Your task to perform on an android device: delete the emails in spam in the gmail app Image 0: 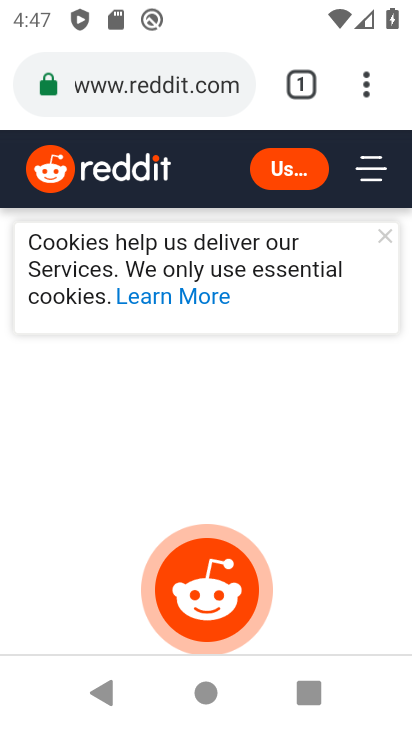
Step 0: press back button
Your task to perform on an android device: delete the emails in spam in the gmail app Image 1: 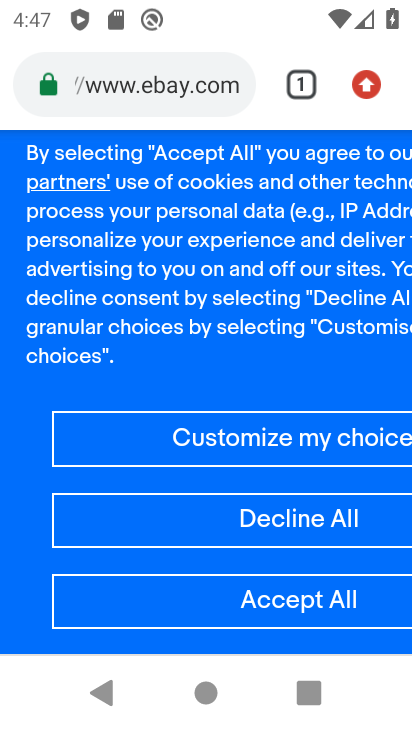
Step 1: press back button
Your task to perform on an android device: delete the emails in spam in the gmail app Image 2: 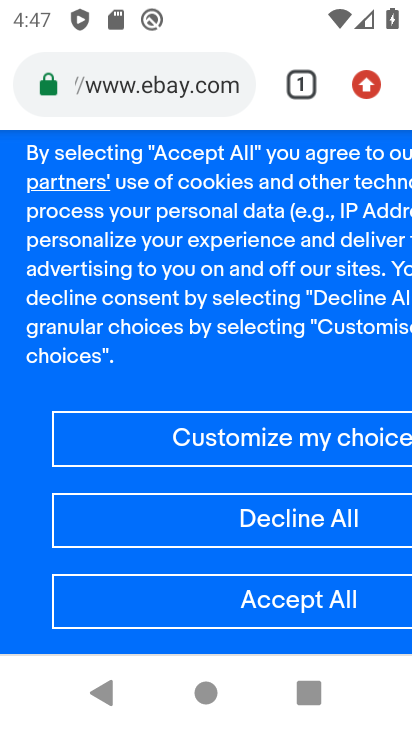
Step 2: press back button
Your task to perform on an android device: delete the emails in spam in the gmail app Image 3: 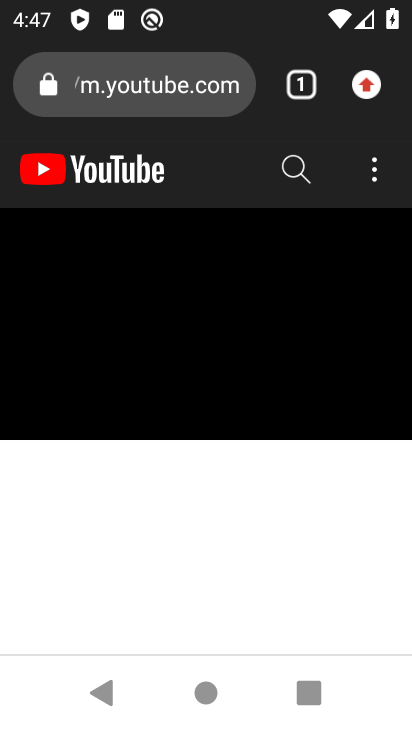
Step 3: press home button
Your task to perform on an android device: delete the emails in spam in the gmail app Image 4: 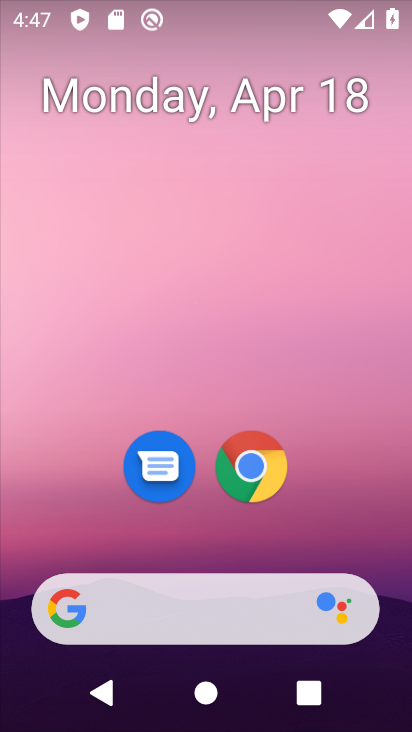
Step 4: drag from (373, 522) to (299, 28)
Your task to perform on an android device: delete the emails in spam in the gmail app Image 5: 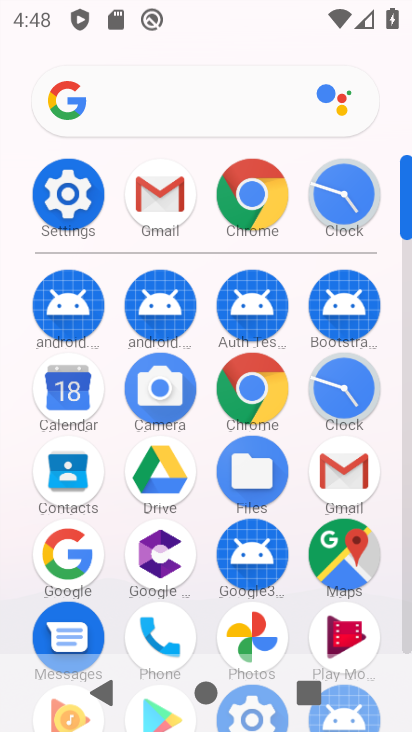
Step 5: click (344, 462)
Your task to perform on an android device: delete the emails in spam in the gmail app Image 6: 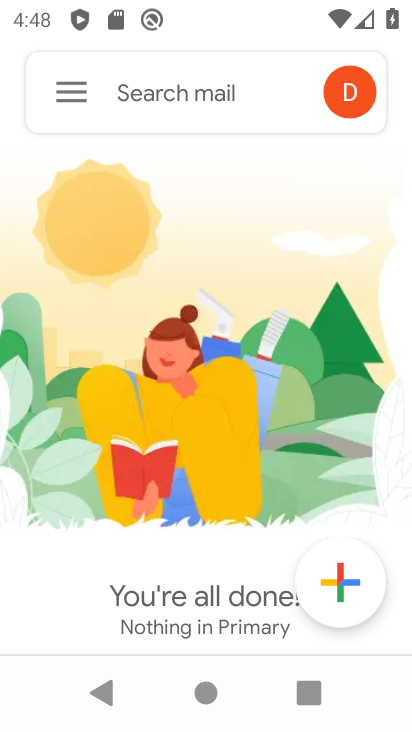
Step 6: click (72, 91)
Your task to perform on an android device: delete the emails in spam in the gmail app Image 7: 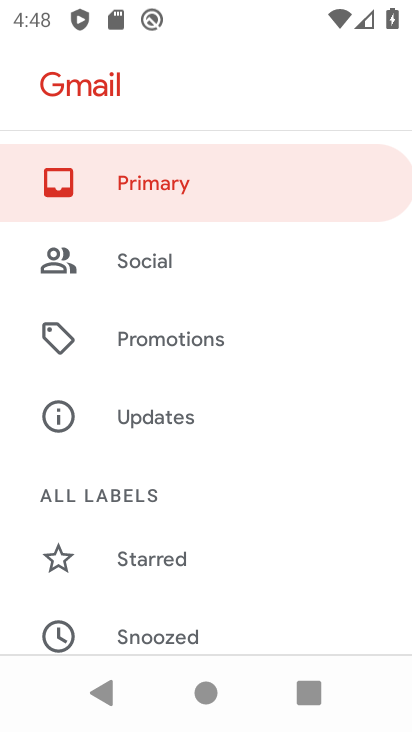
Step 7: drag from (246, 457) to (241, 147)
Your task to perform on an android device: delete the emails in spam in the gmail app Image 8: 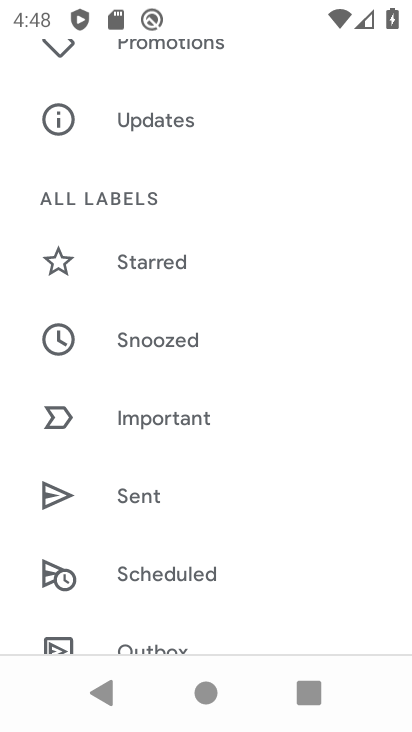
Step 8: drag from (221, 133) to (234, 529)
Your task to perform on an android device: delete the emails in spam in the gmail app Image 9: 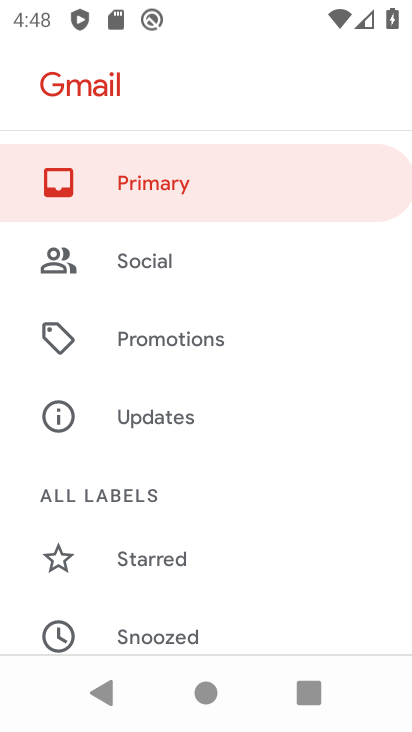
Step 9: drag from (315, 509) to (292, 157)
Your task to perform on an android device: delete the emails in spam in the gmail app Image 10: 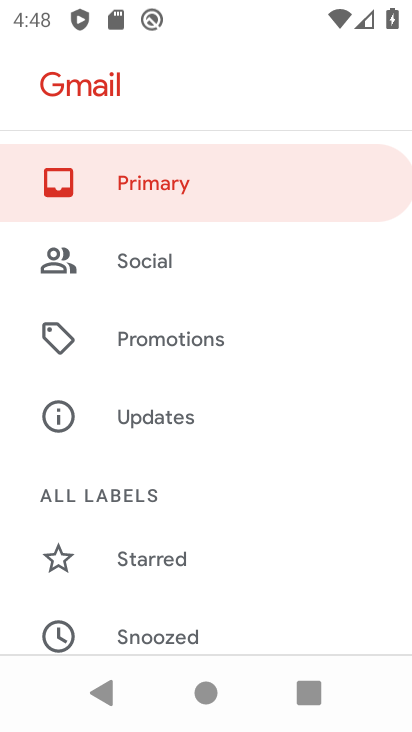
Step 10: drag from (292, 560) to (288, 129)
Your task to perform on an android device: delete the emails in spam in the gmail app Image 11: 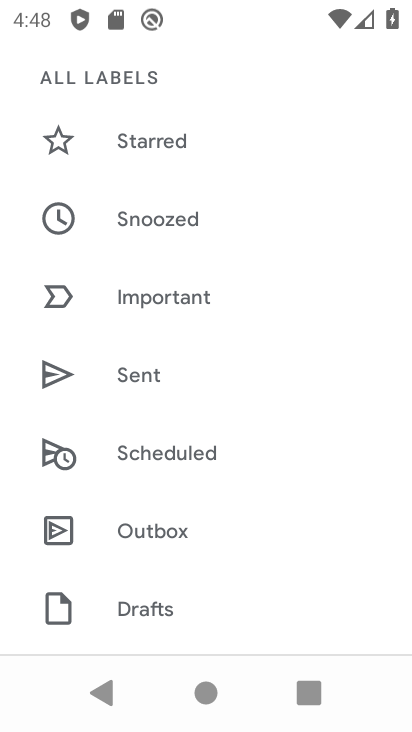
Step 11: drag from (239, 558) to (234, 115)
Your task to perform on an android device: delete the emails in spam in the gmail app Image 12: 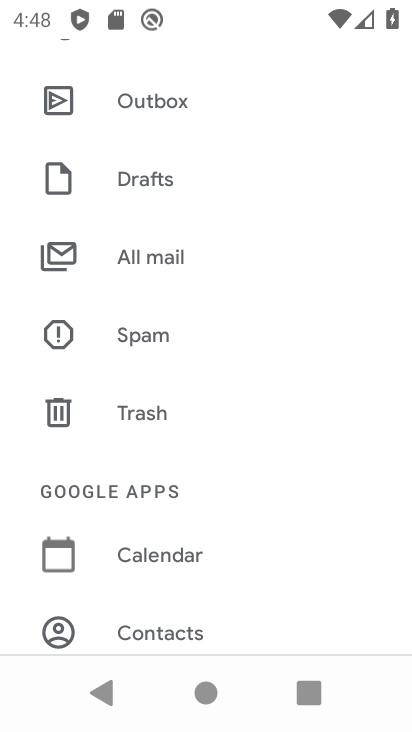
Step 12: click (183, 255)
Your task to perform on an android device: delete the emails in spam in the gmail app Image 13: 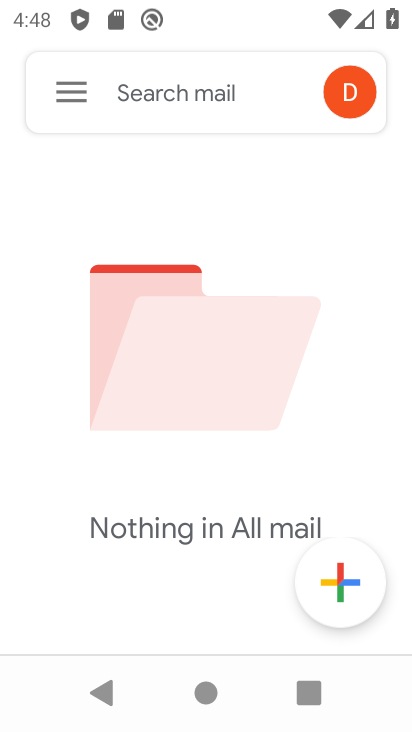
Step 13: click (74, 95)
Your task to perform on an android device: delete the emails in spam in the gmail app Image 14: 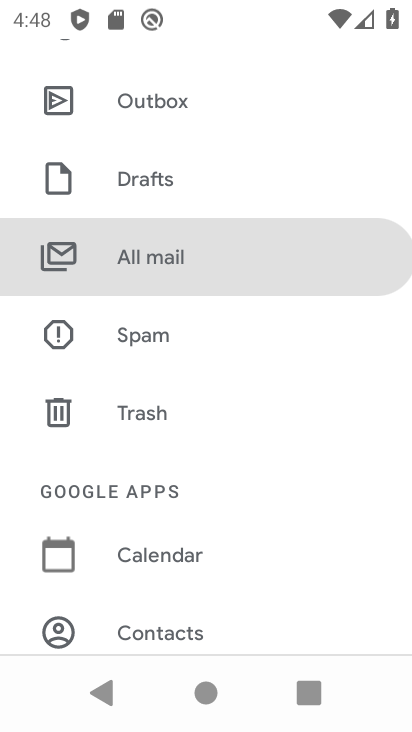
Step 14: click (172, 333)
Your task to perform on an android device: delete the emails in spam in the gmail app Image 15: 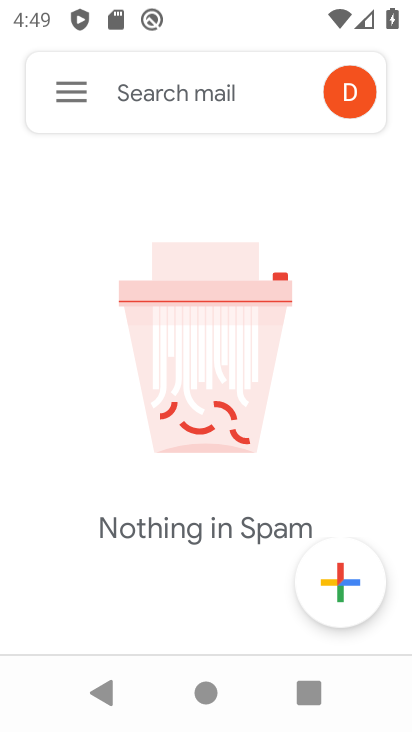
Step 15: task complete